Your task to perform on an android device: Search for bose soundsport free on bestbuy, select the first entry, and add it to the cart. Image 0: 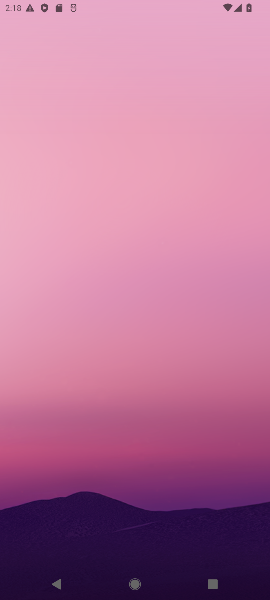
Step 0: press home button
Your task to perform on an android device: Search for bose soundsport free on bestbuy, select the first entry, and add it to the cart. Image 1: 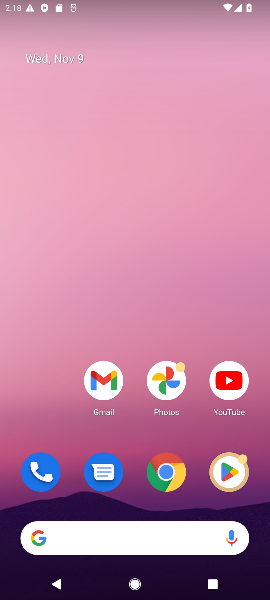
Step 1: click (121, 537)
Your task to perform on an android device: Search for bose soundsport free on bestbuy, select the first entry, and add it to the cart. Image 2: 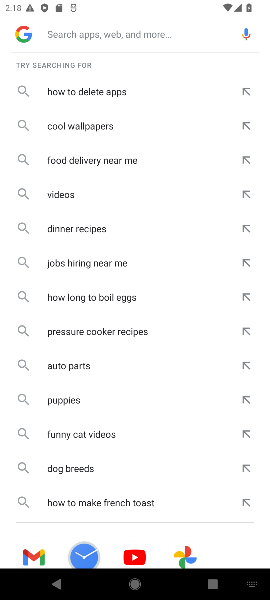
Step 2: type "bestbuy"
Your task to perform on an android device: Search for bose soundsport free on bestbuy, select the first entry, and add it to the cart. Image 3: 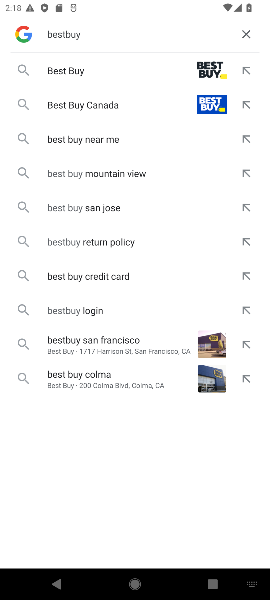
Step 3: click (70, 68)
Your task to perform on an android device: Search for bose soundsport free on bestbuy, select the first entry, and add it to the cart. Image 4: 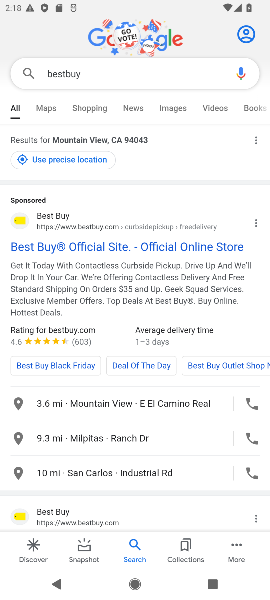
Step 4: click (50, 211)
Your task to perform on an android device: Search for bose soundsport free on bestbuy, select the first entry, and add it to the cart. Image 5: 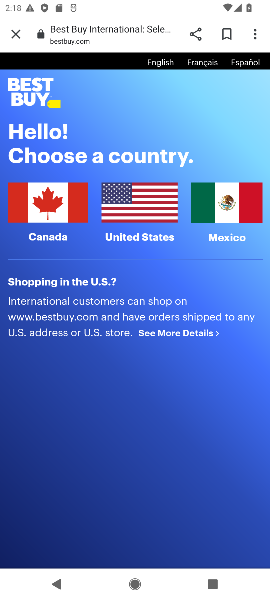
Step 5: click (121, 209)
Your task to perform on an android device: Search for bose soundsport free on bestbuy, select the first entry, and add it to the cart. Image 6: 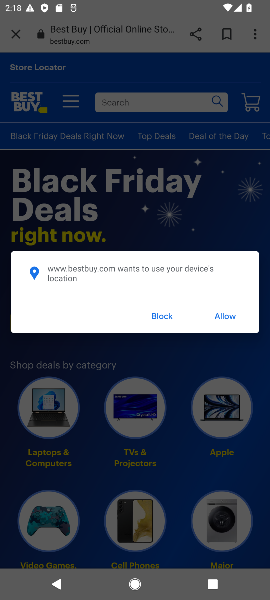
Step 6: click (126, 100)
Your task to perform on an android device: Search for bose soundsport free on bestbuy, select the first entry, and add it to the cart. Image 7: 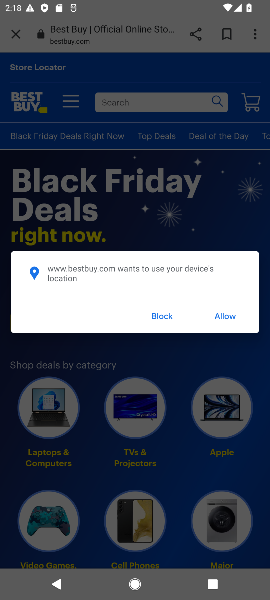
Step 7: click (225, 318)
Your task to perform on an android device: Search for bose soundsport free on bestbuy, select the first entry, and add it to the cart. Image 8: 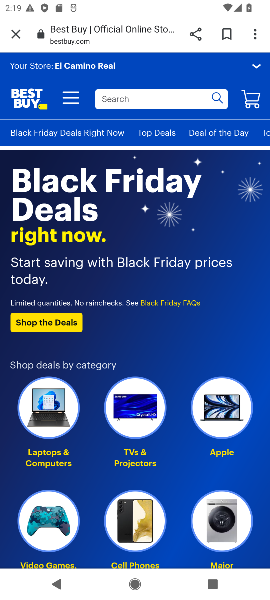
Step 8: click (127, 92)
Your task to perform on an android device: Search for bose soundsport free on bestbuy, select the first entry, and add it to the cart. Image 9: 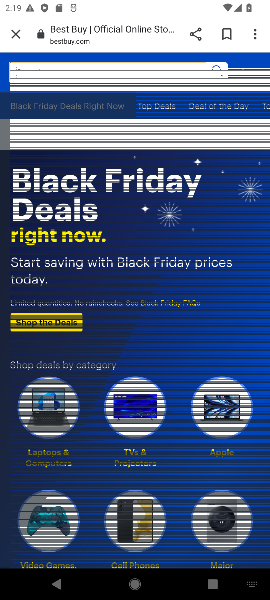
Step 9: type "bose "
Your task to perform on an android device: Search for bose soundsport free on bestbuy, select the first entry, and add it to the cart. Image 10: 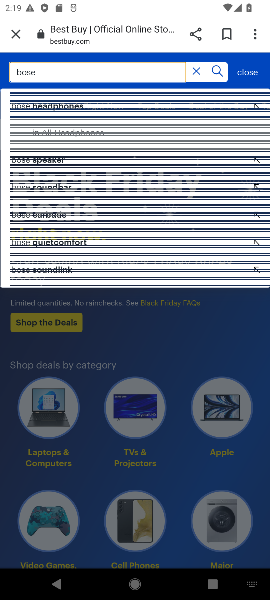
Step 10: type "soundport free"
Your task to perform on an android device: Search for bose soundsport free on bestbuy, select the first entry, and add it to the cart. Image 11: 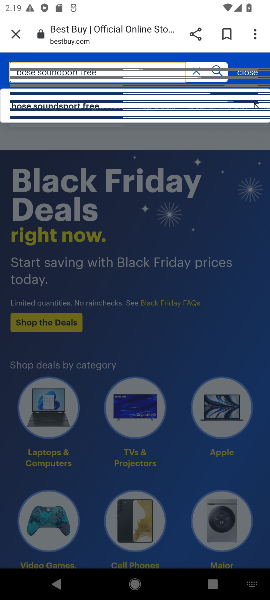
Step 11: click (90, 104)
Your task to perform on an android device: Search for bose soundsport free on bestbuy, select the first entry, and add it to the cart. Image 12: 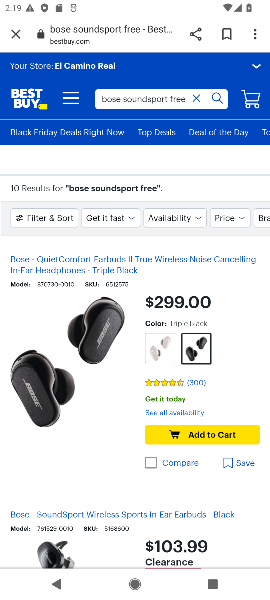
Step 12: click (195, 434)
Your task to perform on an android device: Search for bose soundsport free on bestbuy, select the first entry, and add it to the cart. Image 13: 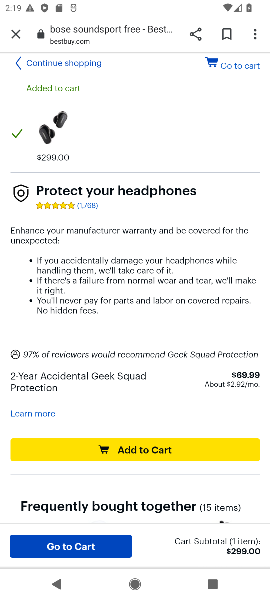
Step 13: task complete